Your task to perform on an android device: open a bookmark in the chrome app Image 0: 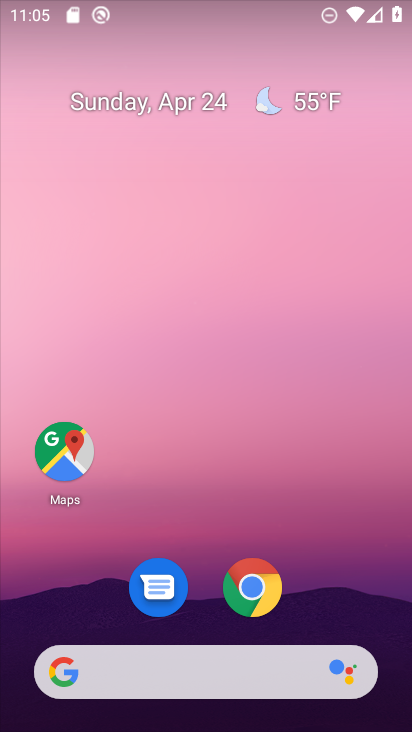
Step 0: click (258, 587)
Your task to perform on an android device: open a bookmark in the chrome app Image 1: 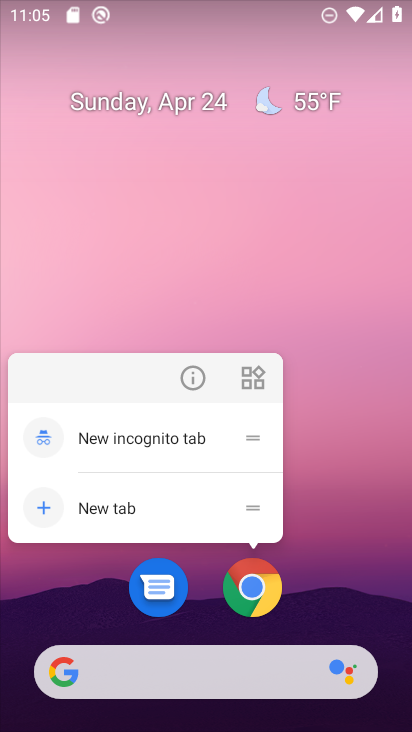
Step 1: drag from (337, 553) to (353, 3)
Your task to perform on an android device: open a bookmark in the chrome app Image 2: 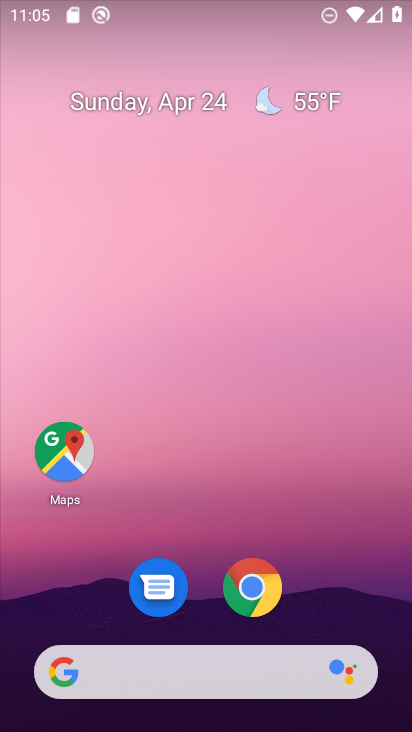
Step 2: click (244, 602)
Your task to perform on an android device: open a bookmark in the chrome app Image 3: 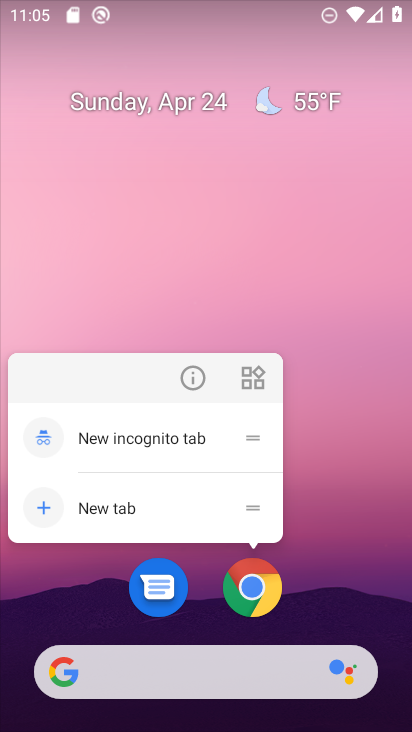
Step 3: click (246, 601)
Your task to perform on an android device: open a bookmark in the chrome app Image 4: 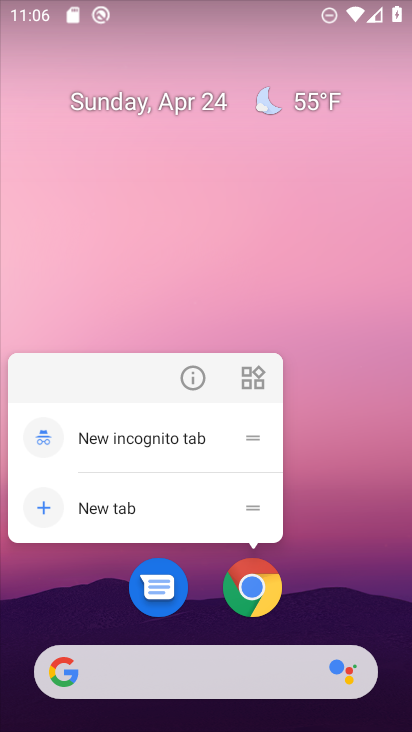
Step 4: drag from (318, 576) to (301, 95)
Your task to perform on an android device: open a bookmark in the chrome app Image 5: 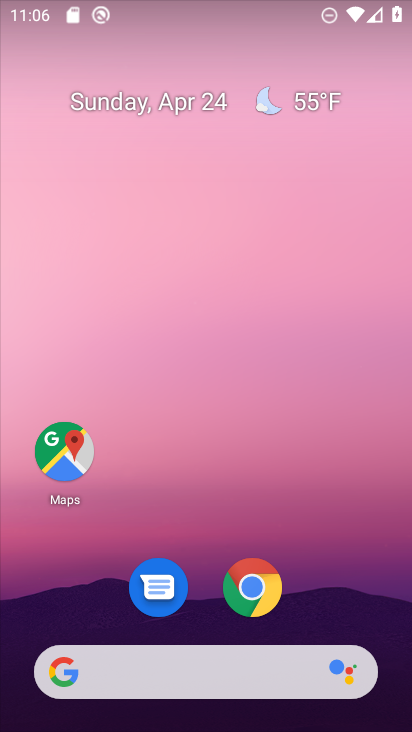
Step 5: drag from (386, 593) to (321, 197)
Your task to perform on an android device: open a bookmark in the chrome app Image 6: 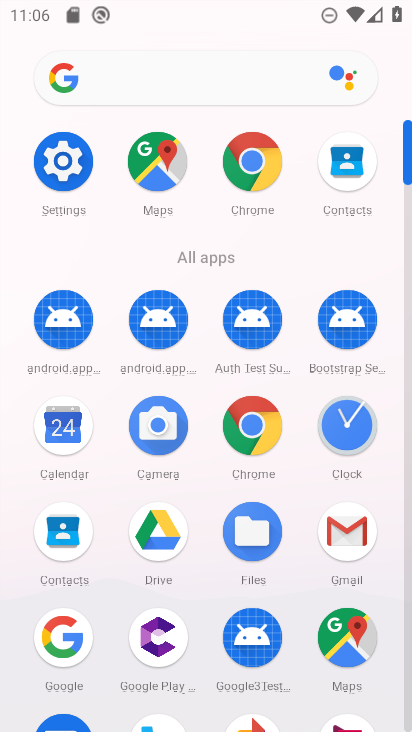
Step 6: click (257, 432)
Your task to perform on an android device: open a bookmark in the chrome app Image 7: 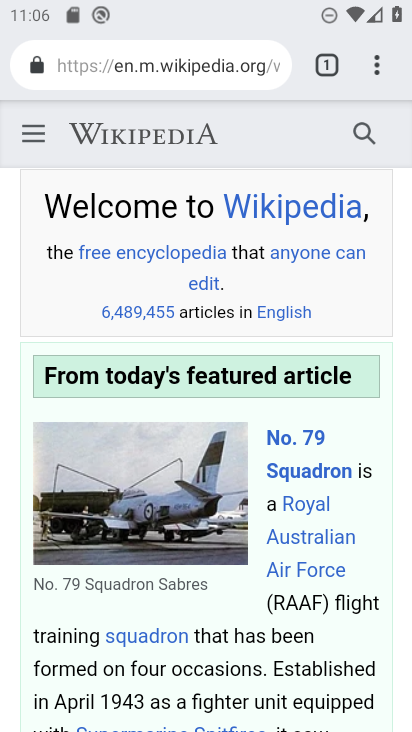
Step 7: drag from (375, 57) to (175, 324)
Your task to perform on an android device: open a bookmark in the chrome app Image 8: 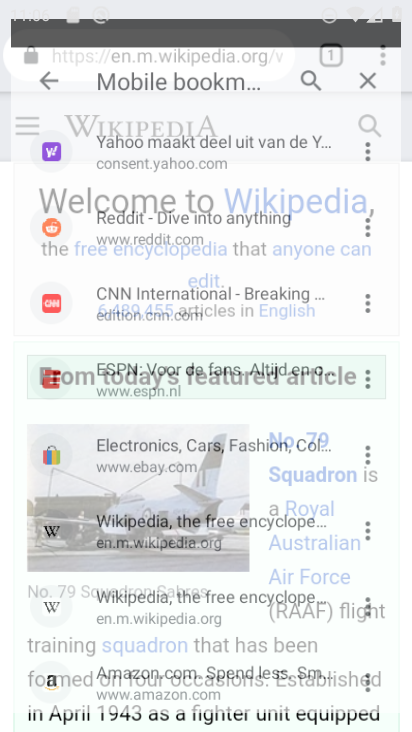
Step 8: click (172, 318)
Your task to perform on an android device: open a bookmark in the chrome app Image 9: 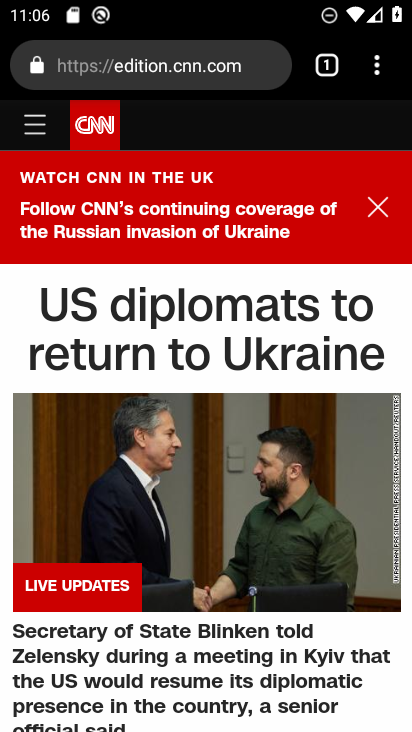
Step 9: task complete